Your task to perform on an android device: Open settings Image 0: 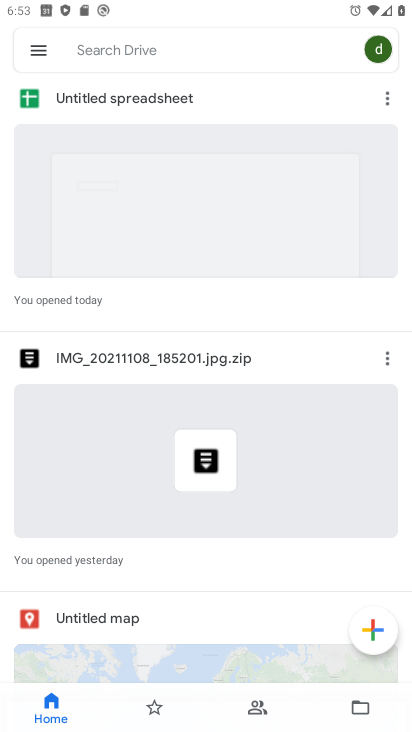
Step 0: press home button
Your task to perform on an android device: Open settings Image 1: 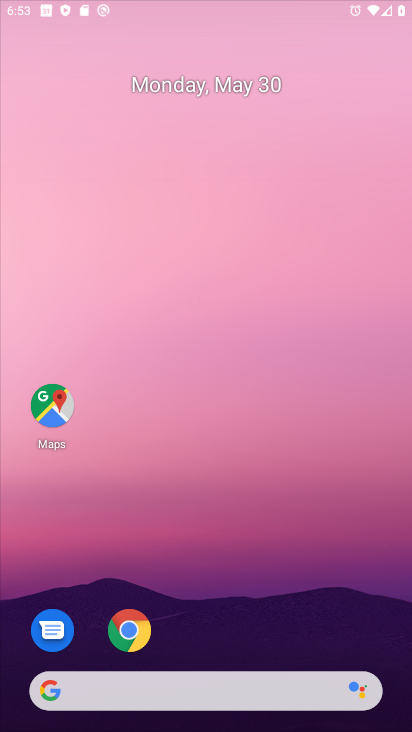
Step 1: drag from (311, 513) to (194, 38)
Your task to perform on an android device: Open settings Image 2: 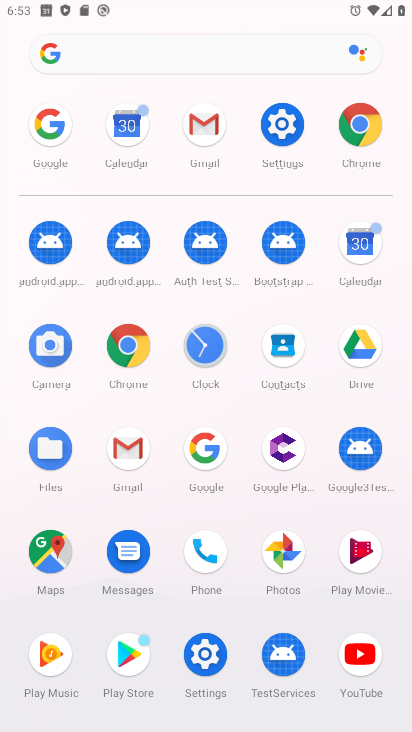
Step 2: click (266, 105)
Your task to perform on an android device: Open settings Image 3: 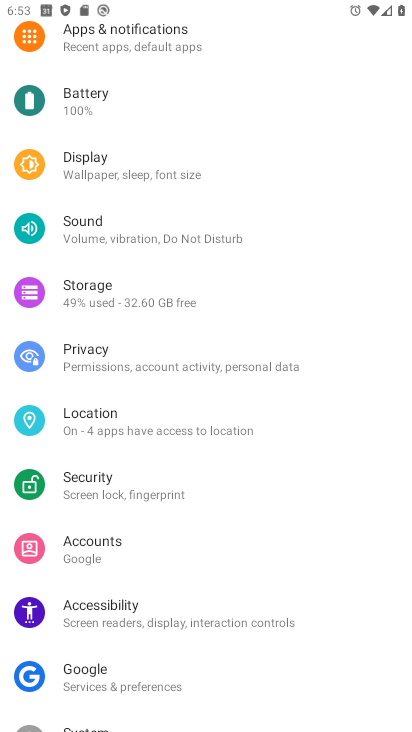
Step 3: task complete